Your task to perform on an android device: toggle notification dots Image 0: 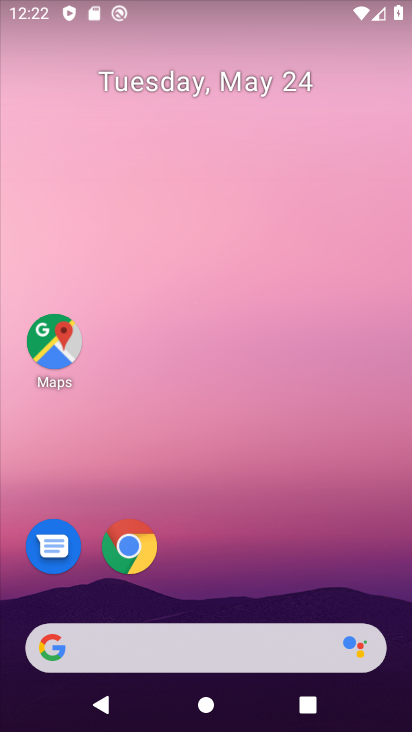
Step 0: drag from (187, 659) to (285, 46)
Your task to perform on an android device: toggle notification dots Image 1: 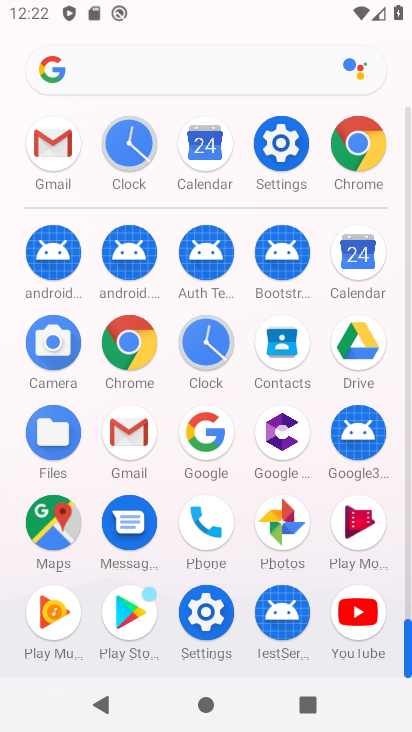
Step 1: click (272, 153)
Your task to perform on an android device: toggle notification dots Image 2: 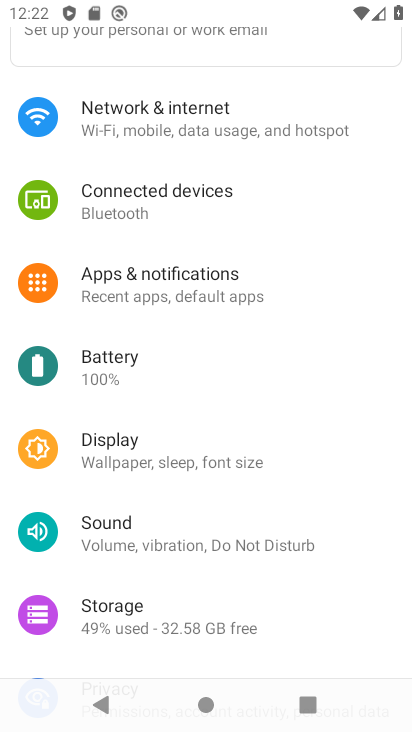
Step 2: click (255, 285)
Your task to perform on an android device: toggle notification dots Image 3: 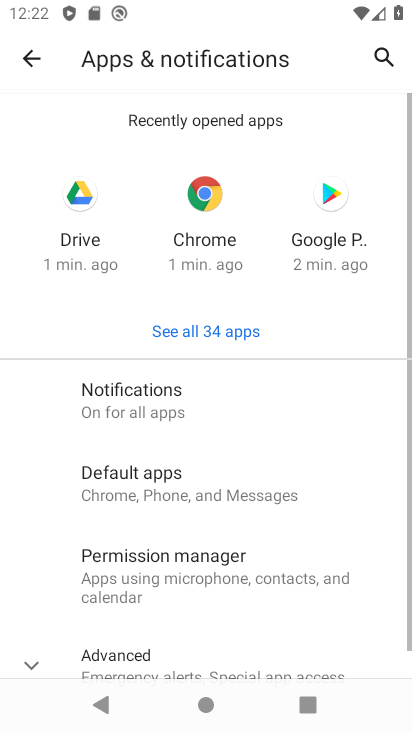
Step 3: drag from (231, 579) to (241, 244)
Your task to perform on an android device: toggle notification dots Image 4: 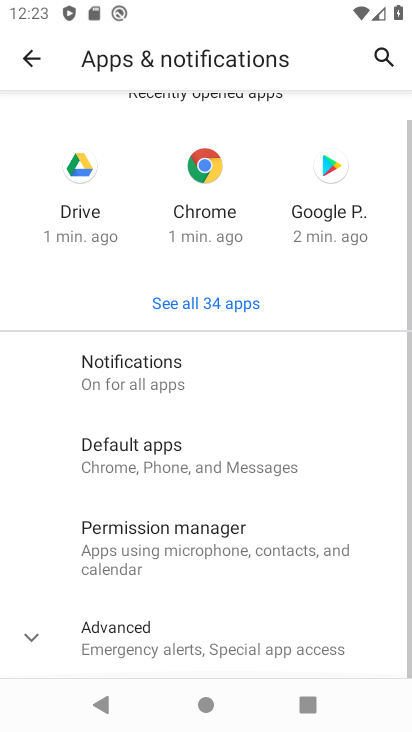
Step 4: click (183, 376)
Your task to perform on an android device: toggle notification dots Image 5: 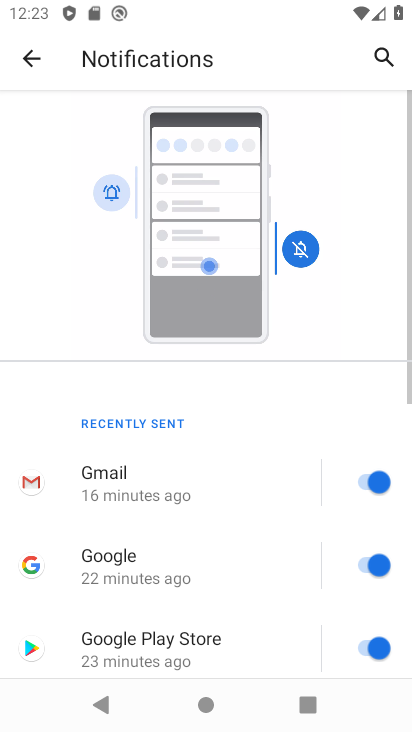
Step 5: drag from (278, 587) to (312, 2)
Your task to perform on an android device: toggle notification dots Image 6: 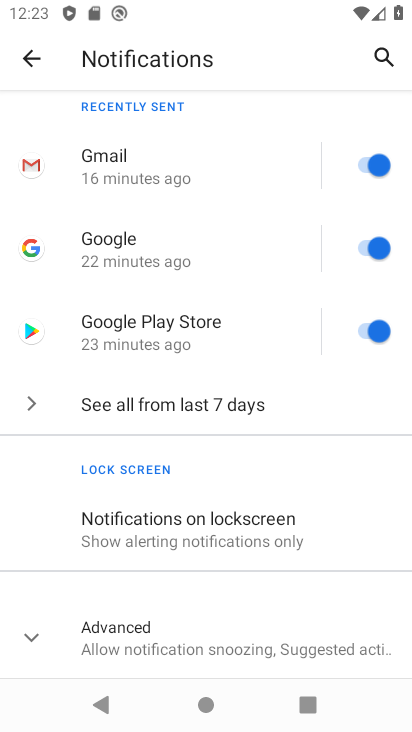
Step 6: click (231, 641)
Your task to perform on an android device: toggle notification dots Image 7: 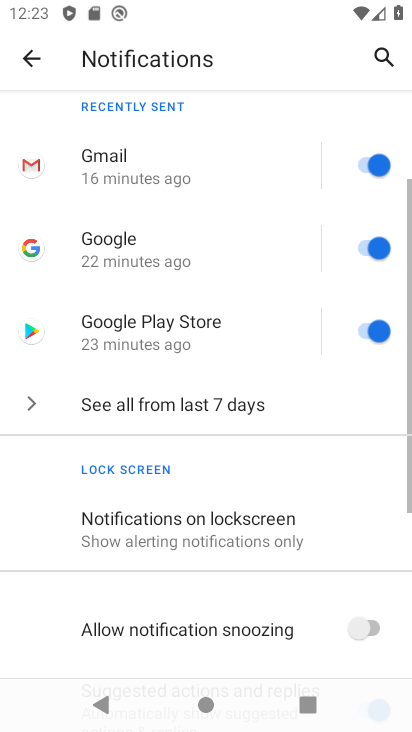
Step 7: drag from (231, 641) to (295, 63)
Your task to perform on an android device: toggle notification dots Image 8: 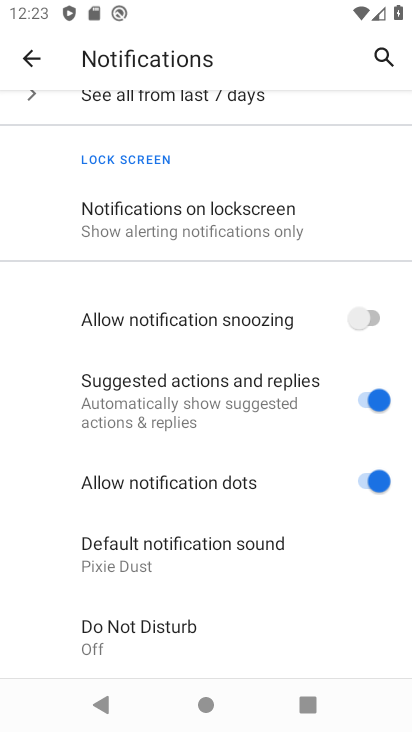
Step 8: click (359, 483)
Your task to perform on an android device: toggle notification dots Image 9: 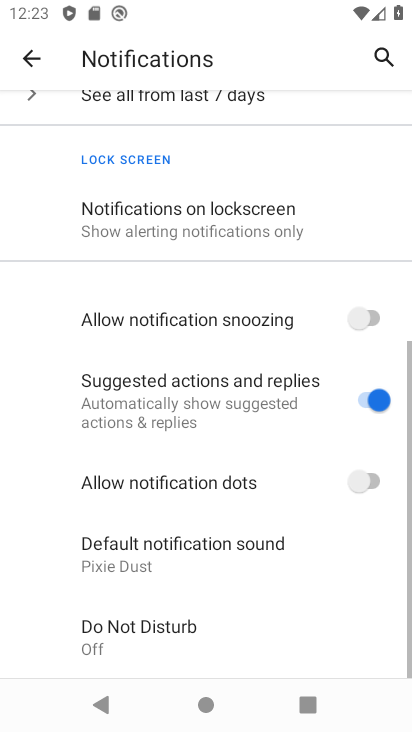
Step 9: task complete